Your task to perform on an android device: turn off sleep mode Image 0: 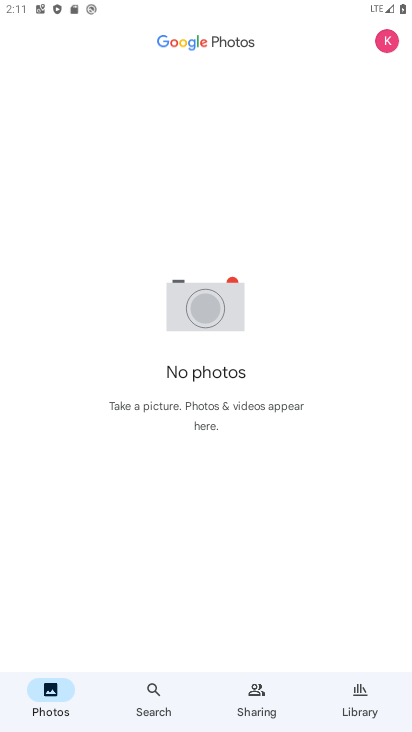
Step 0: press home button
Your task to perform on an android device: turn off sleep mode Image 1: 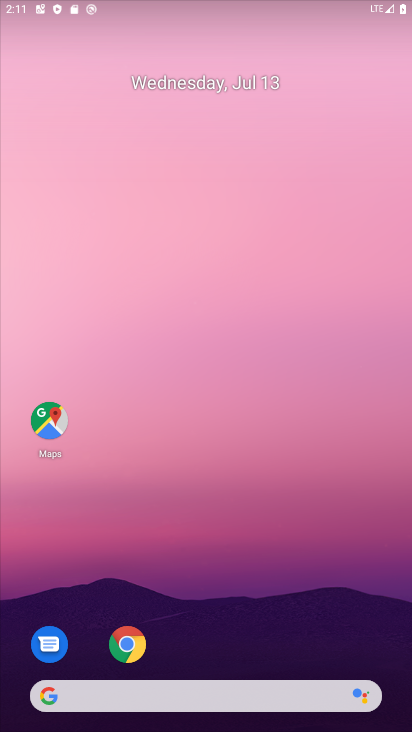
Step 1: drag from (363, 582) to (329, 92)
Your task to perform on an android device: turn off sleep mode Image 2: 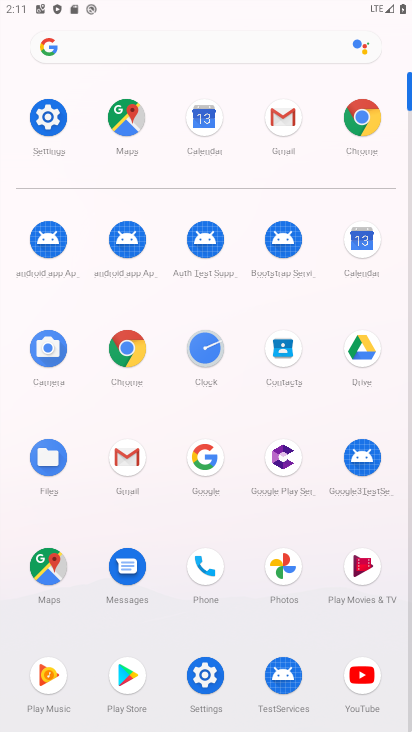
Step 2: click (49, 116)
Your task to perform on an android device: turn off sleep mode Image 3: 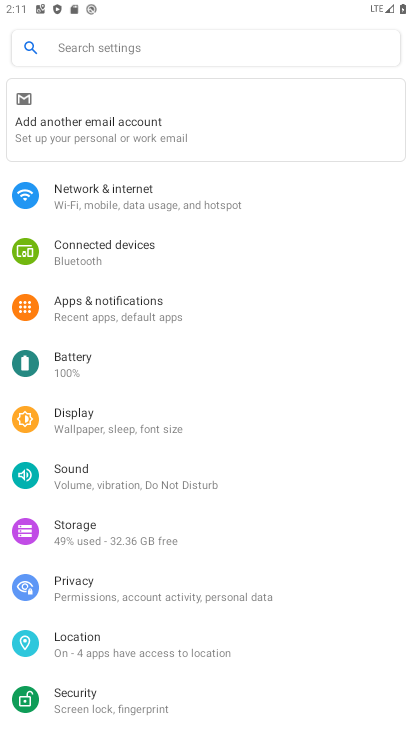
Step 3: click (124, 428)
Your task to perform on an android device: turn off sleep mode Image 4: 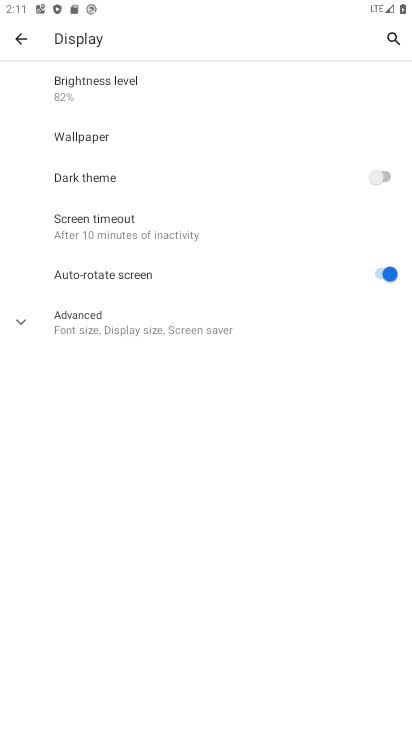
Step 4: click (136, 222)
Your task to perform on an android device: turn off sleep mode Image 5: 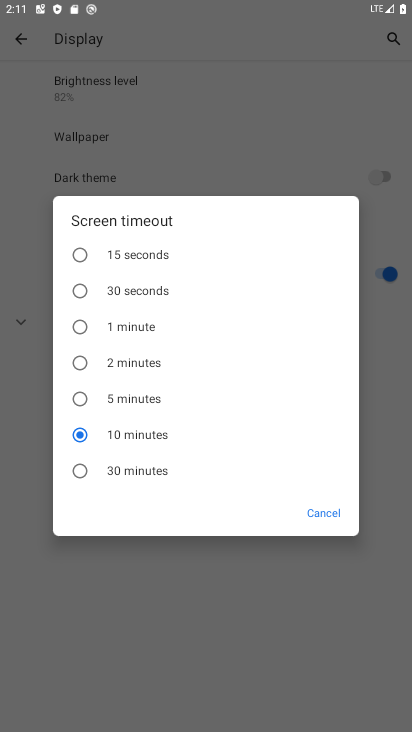
Step 5: task complete